Your task to perform on an android device: toggle priority inbox in the gmail app Image 0: 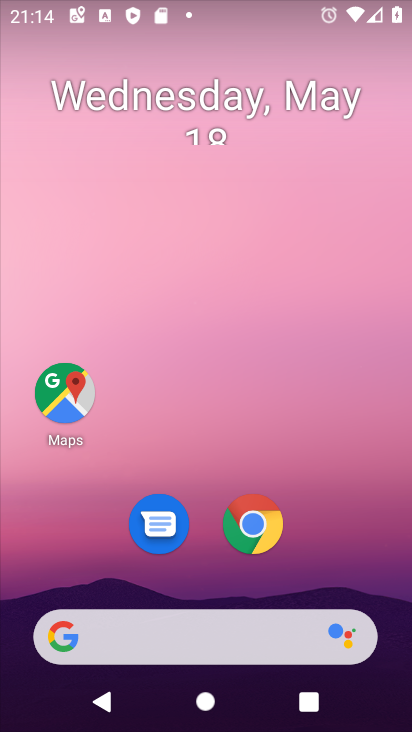
Step 0: drag from (308, 508) to (277, 45)
Your task to perform on an android device: toggle priority inbox in the gmail app Image 1: 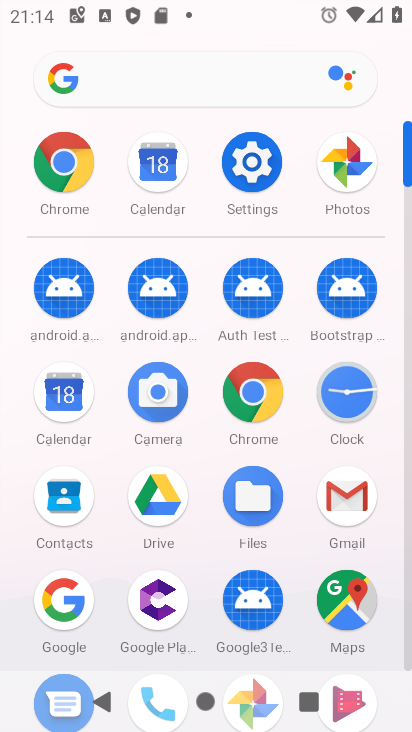
Step 1: click (352, 497)
Your task to perform on an android device: toggle priority inbox in the gmail app Image 2: 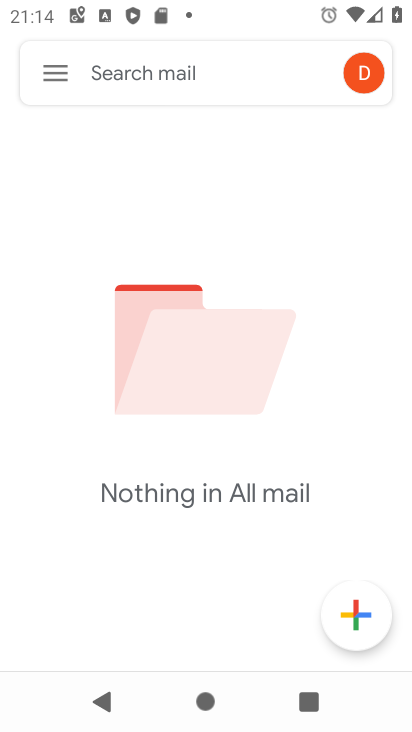
Step 2: click (54, 72)
Your task to perform on an android device: toggle priority inbox in the gmail app Image 3: 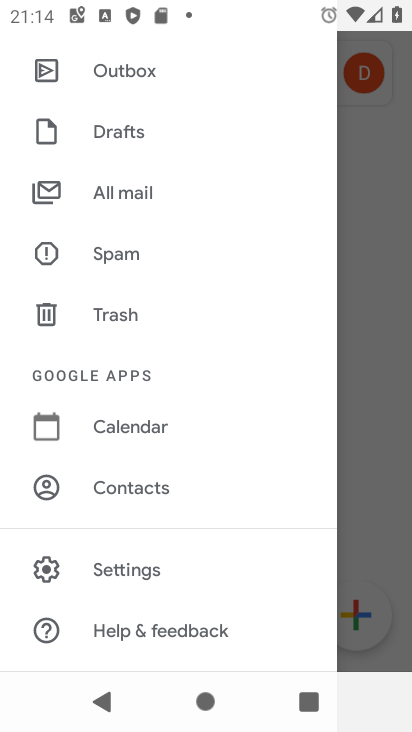
Step 3: click (132, 562)
Your task to perform on an android device: toggle priority inbox in the gmail app Image 4: 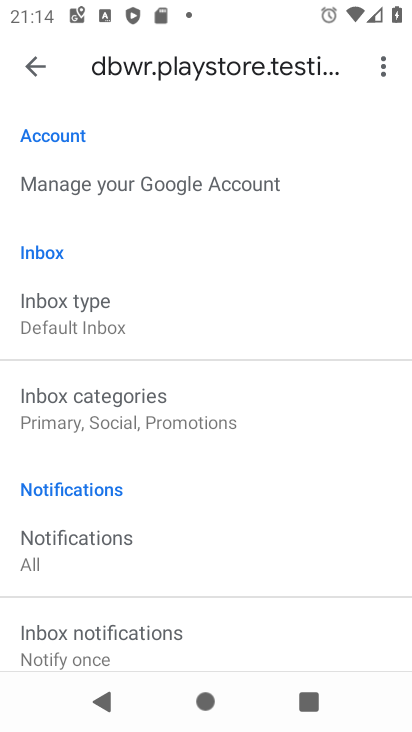
Step 4: click (89, 309)
Your task to perform on an android device: toggle priority inbox in the gmail app Image 5: 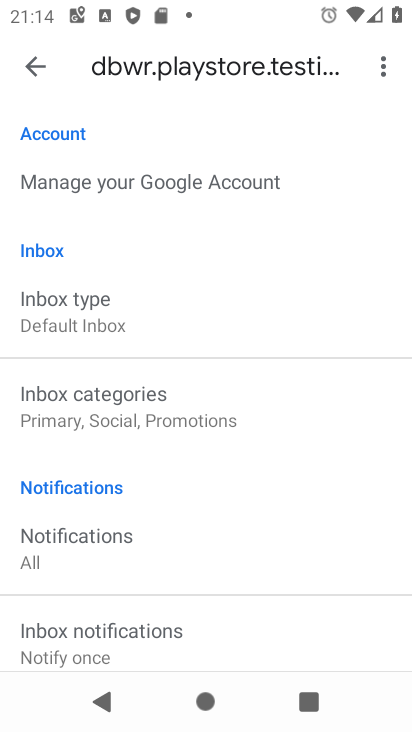
Step 5: click (93, 299)
Your task to perform on an android device: toggle priority inbox in the gmail app Image 6: 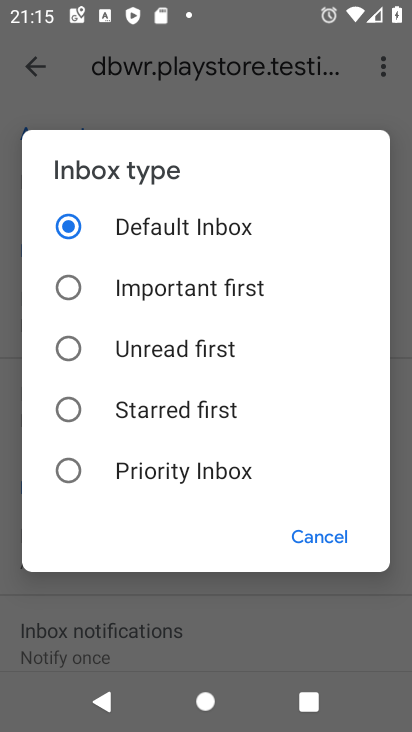
Step 6: click (70, 462)
Your task to perform on an android device: toggle priority inbox in the gmail app Image 7: 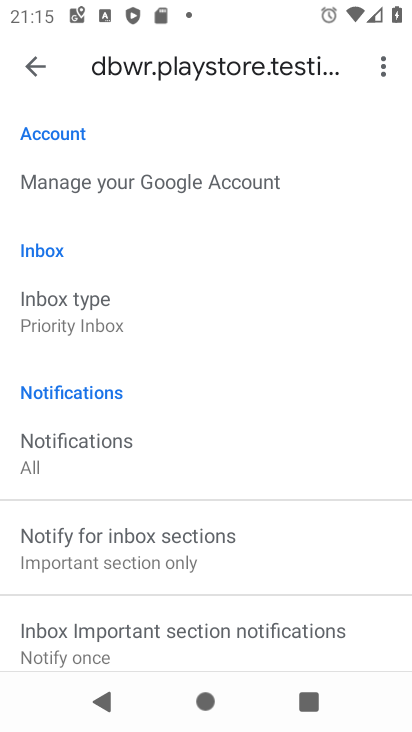
Step 7: task complete